Your task to perform on an android device: Go to Yahoo.com Image 0: 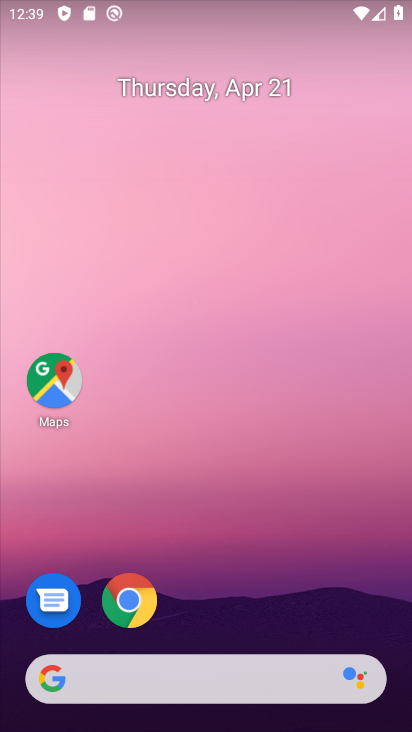
Step 0: click (124, 598)
Your task to perform on an android device: Go to Yahoo.com Image 1: 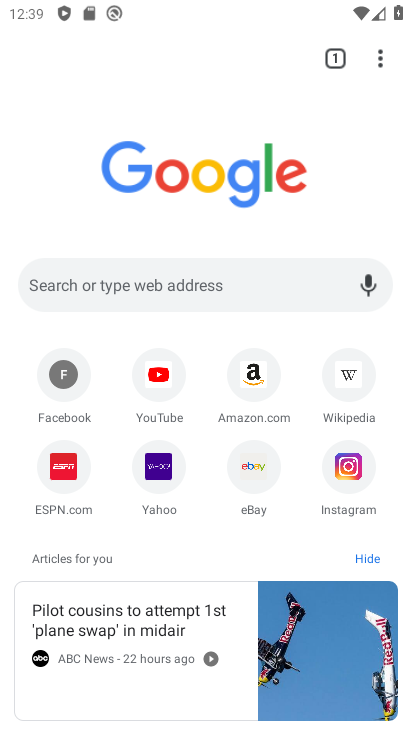
Step 1: click (154, 280)
Your task to perform on an android device: Go to Yahoo.com Image 2: 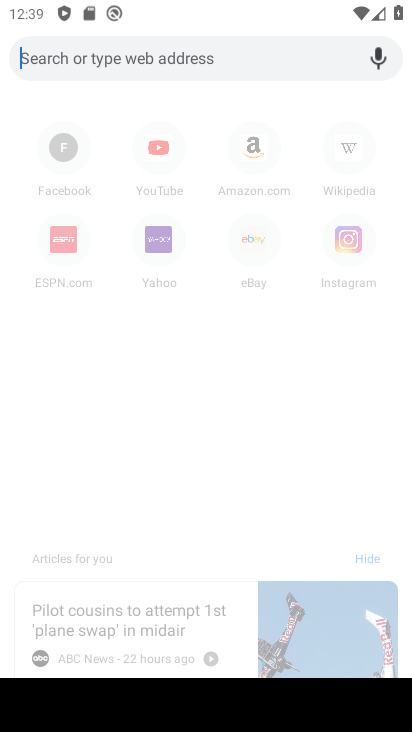
Step 2: type "yahoo.com"
Your task to perform on an android device: Go to Yahoo.com Image 3: 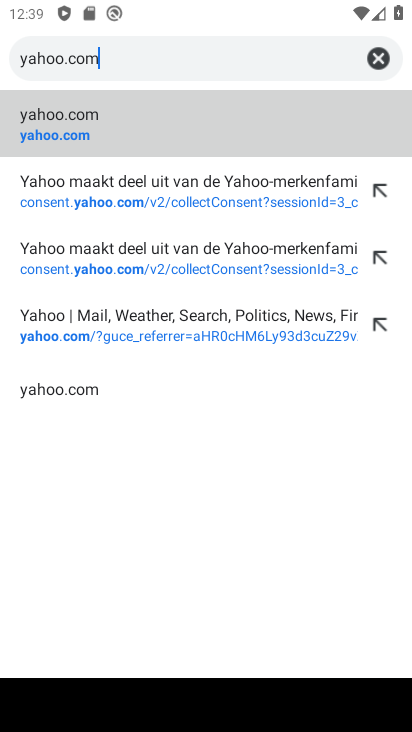
Step 3: click (54, 114)
Your task to perform on an android device: Go to Yahoo.com Image 4: 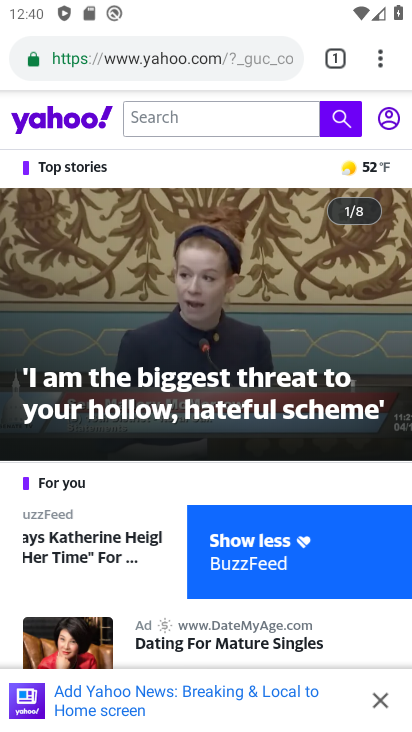
Step 4: task complete